Your task to perform on an android device: Open Yahoo.com Image 0: 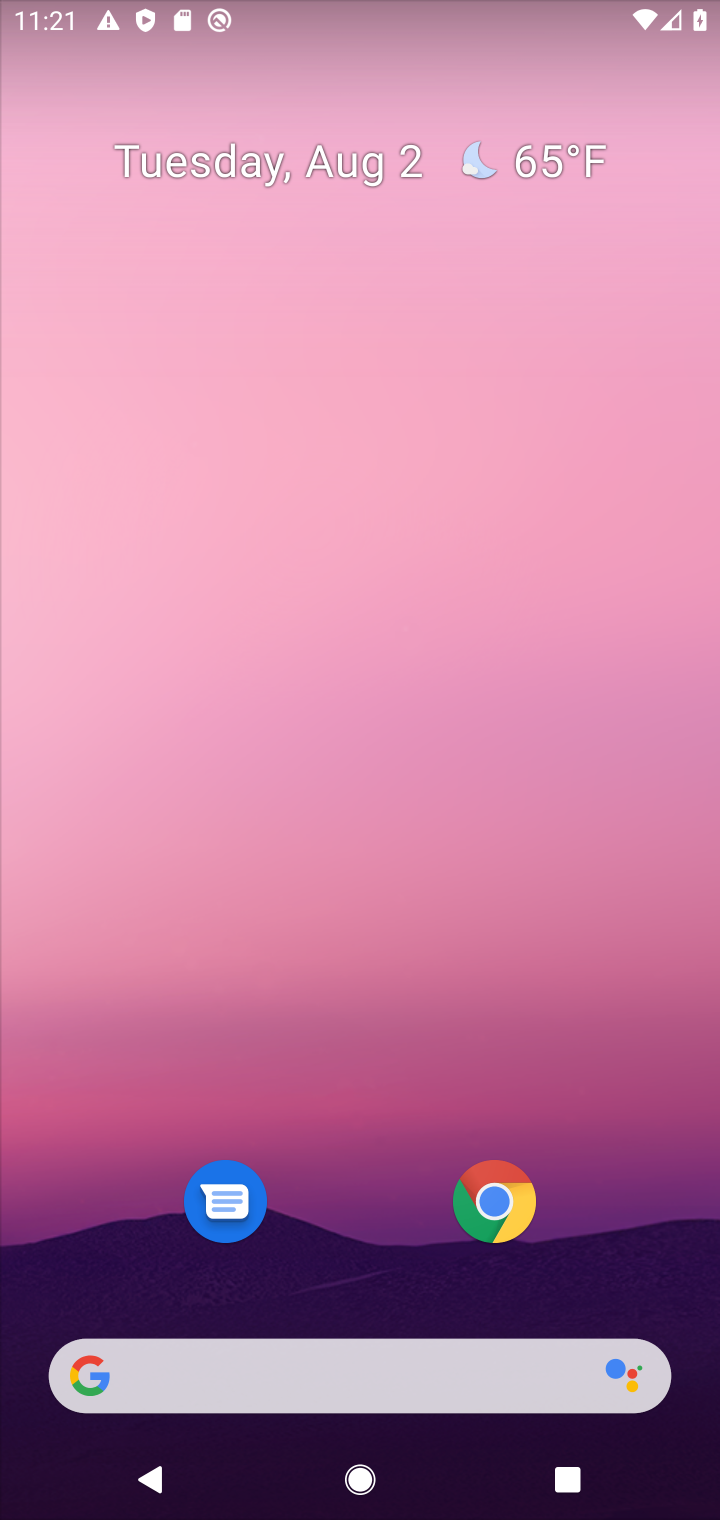
Step 0: click (511, 1219)
Your task to perform on an android device: Open Yahoo.com Image 1: 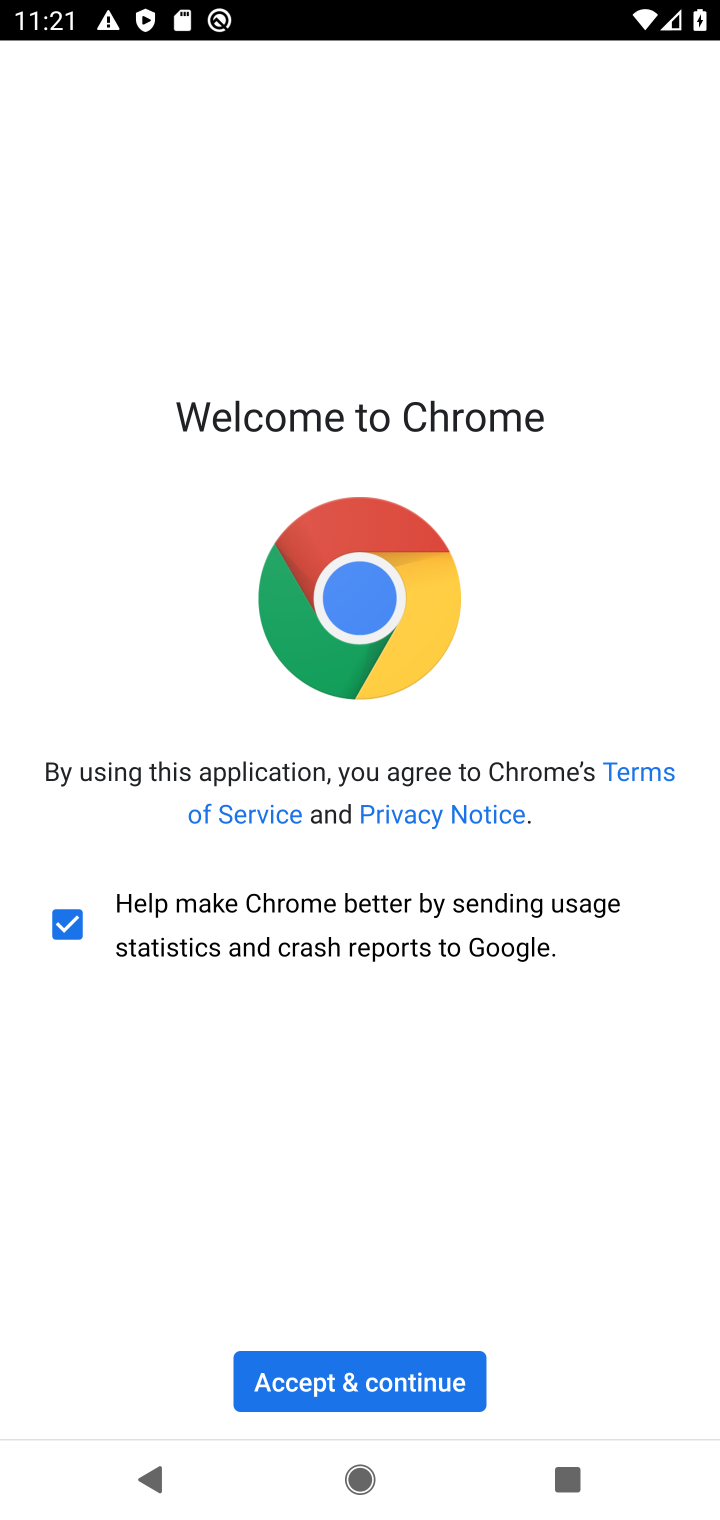
Step 1: click (335, 1368)
Your task to perform on an android device: Open Yahoo.com Image 2: 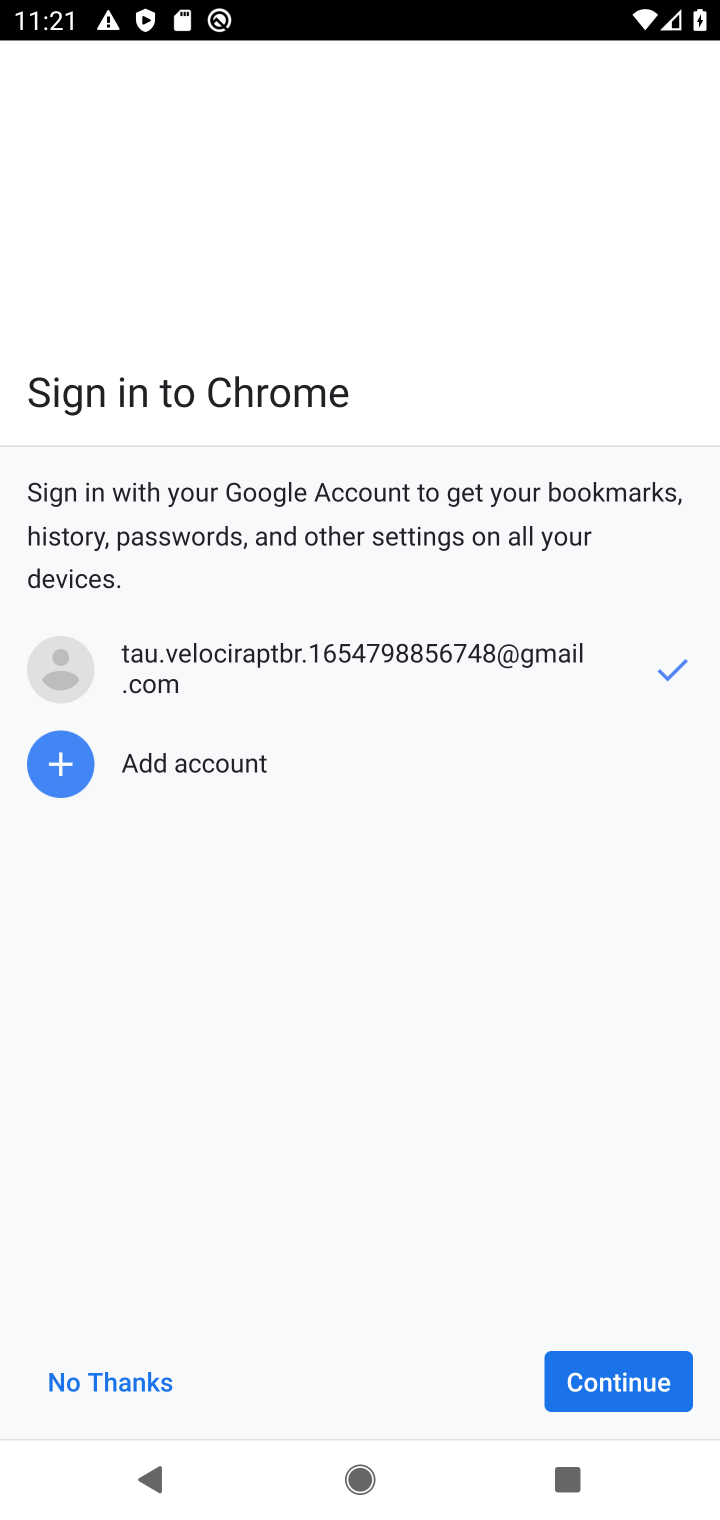
Step 2: click (575, 1427)
Your task to perform on an android device: Open Yahoo.com Image 3: 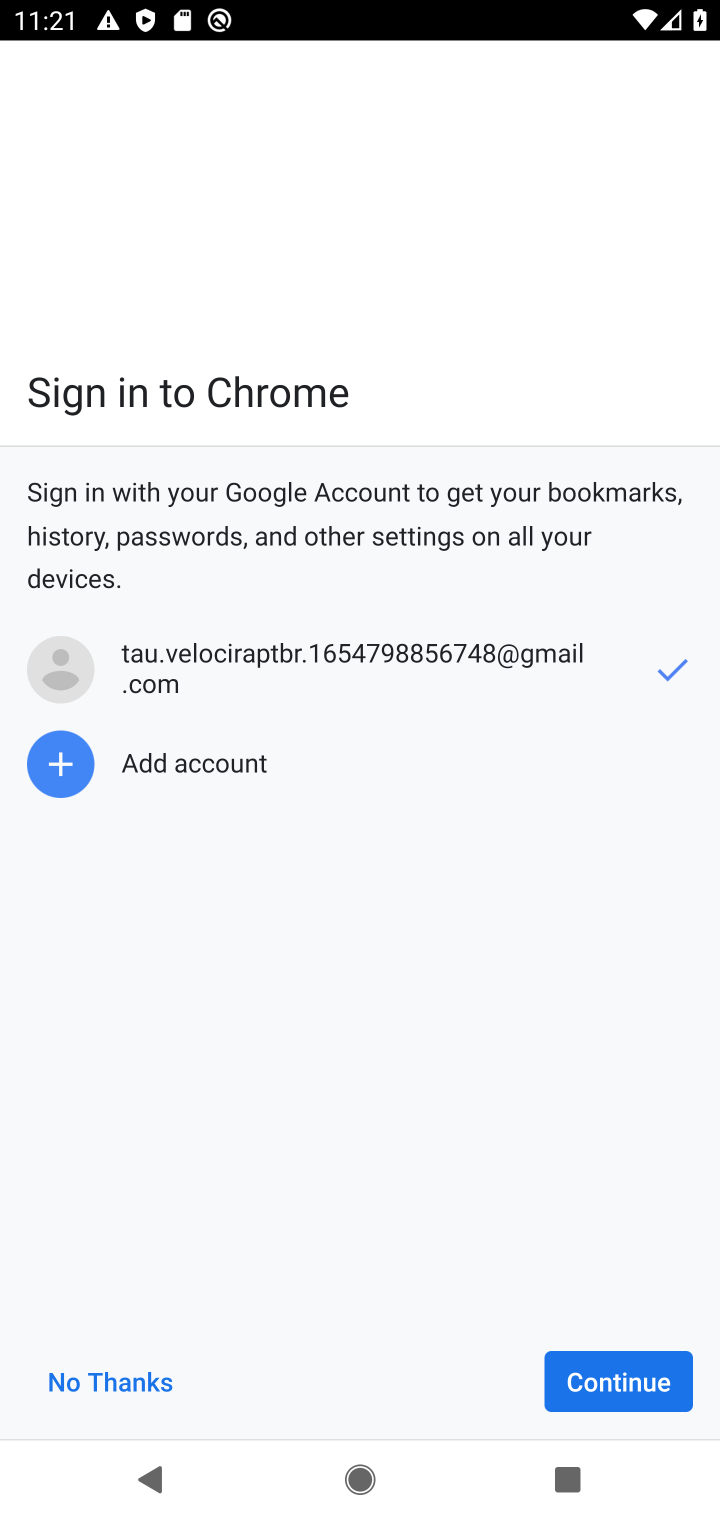
Step 3: click (575, 1403)
Your task to perform on an android device: Open Yahoo.com Image 4: 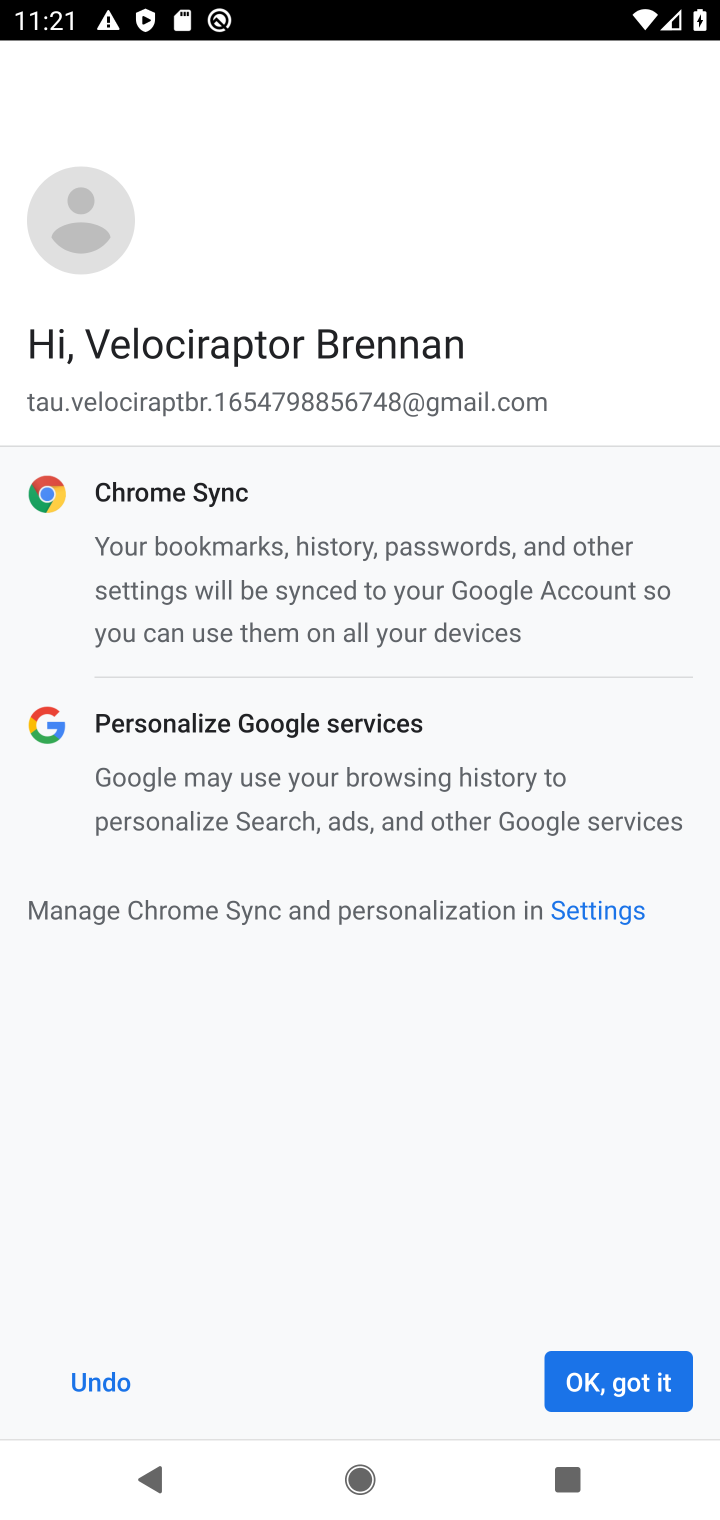
Step 4: click (579, 1398)
Your task to perform on an android device: Open Yahoo.com Image 5: 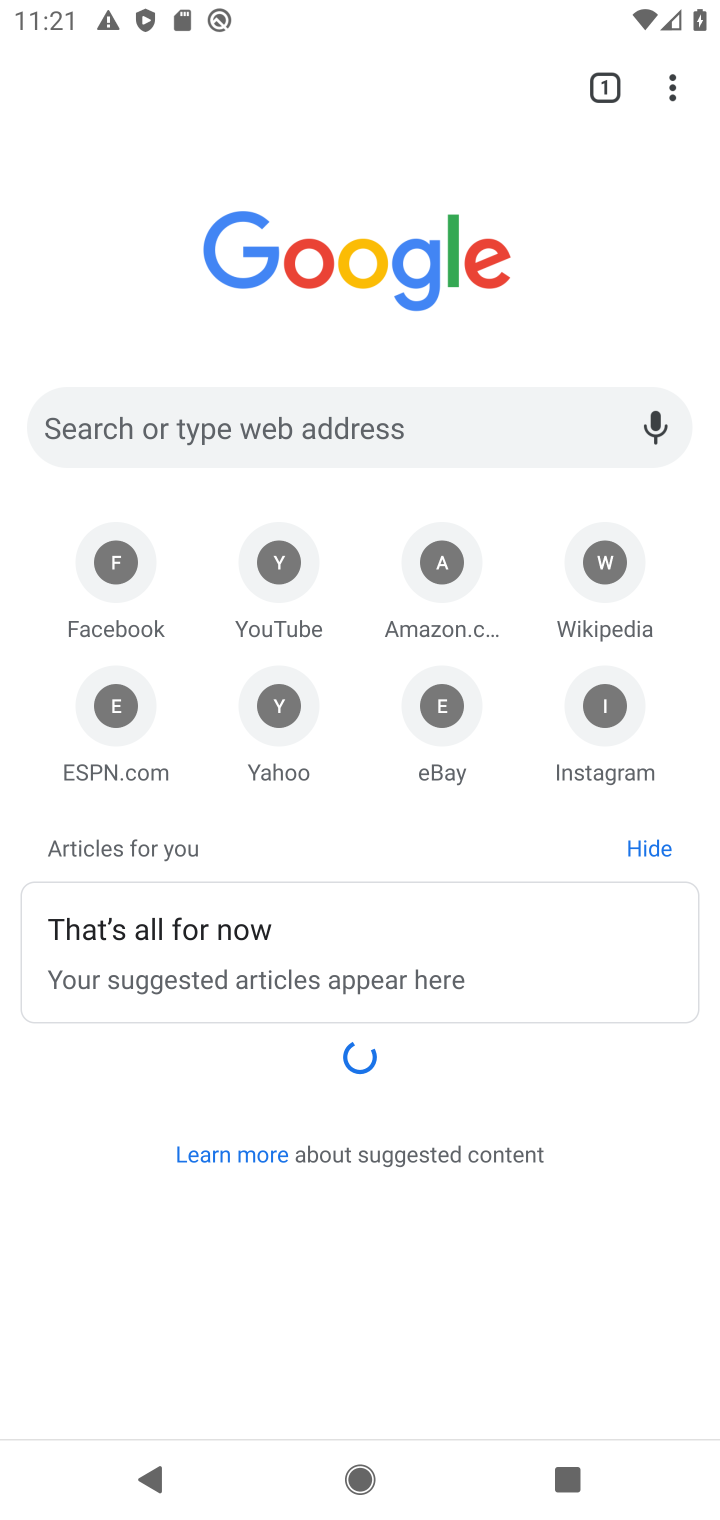
Step 5: click (282, 704)
Your task to perform on an android device: Open Yahoo.com Image 6: 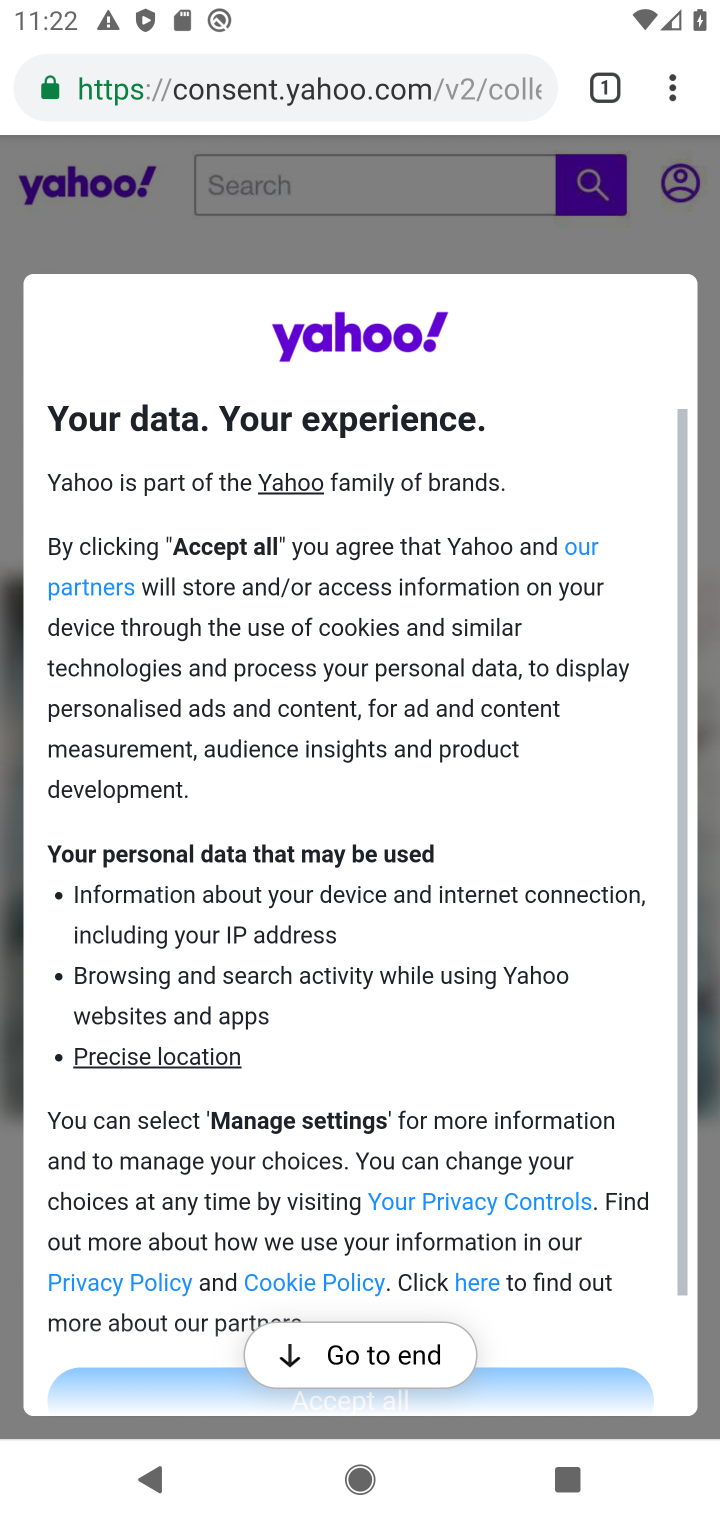
Step 6: click (285, 1364)
Your task to perform on an android device: Open Yahoo.com Image 7: 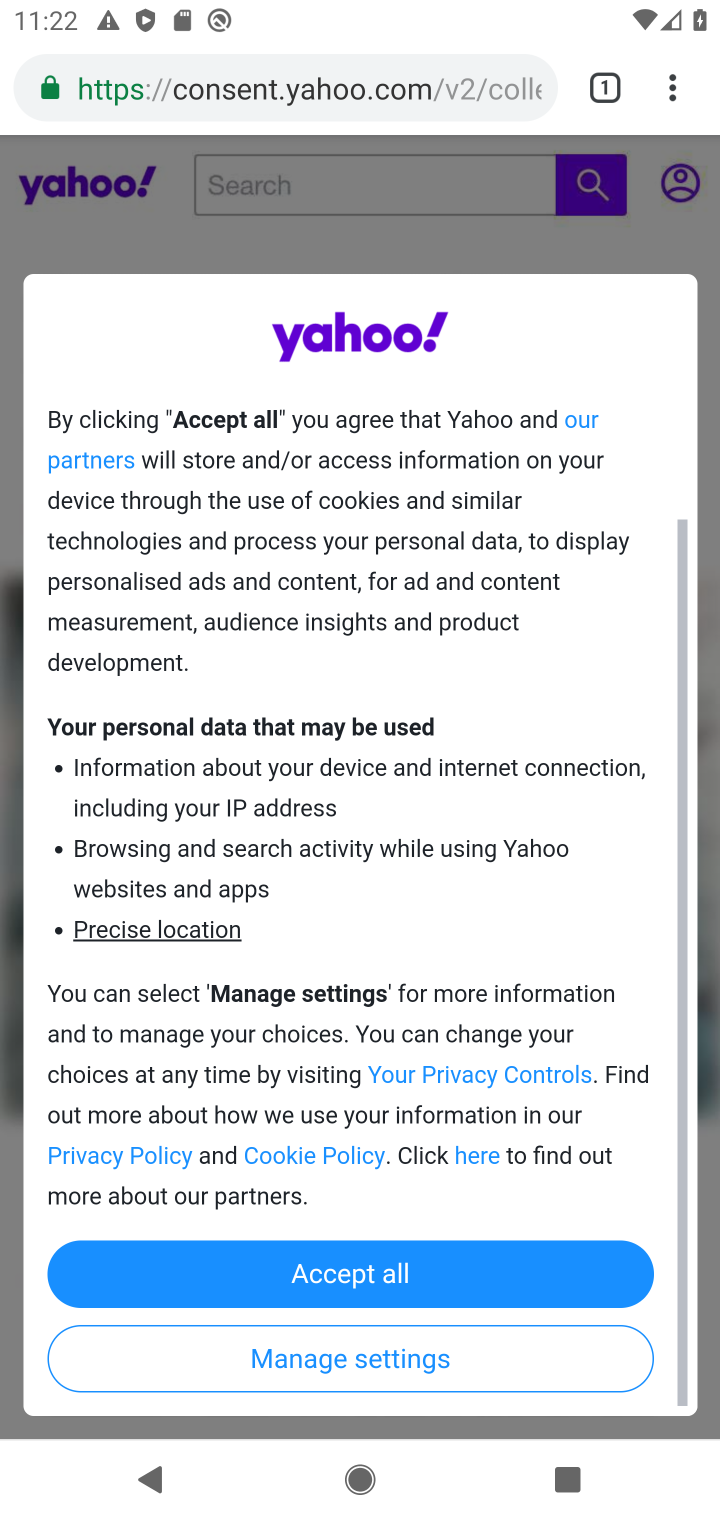
Step 7: click (219, 1280)
Your task to perform on an android device: Open Yahoo.com Image 8: 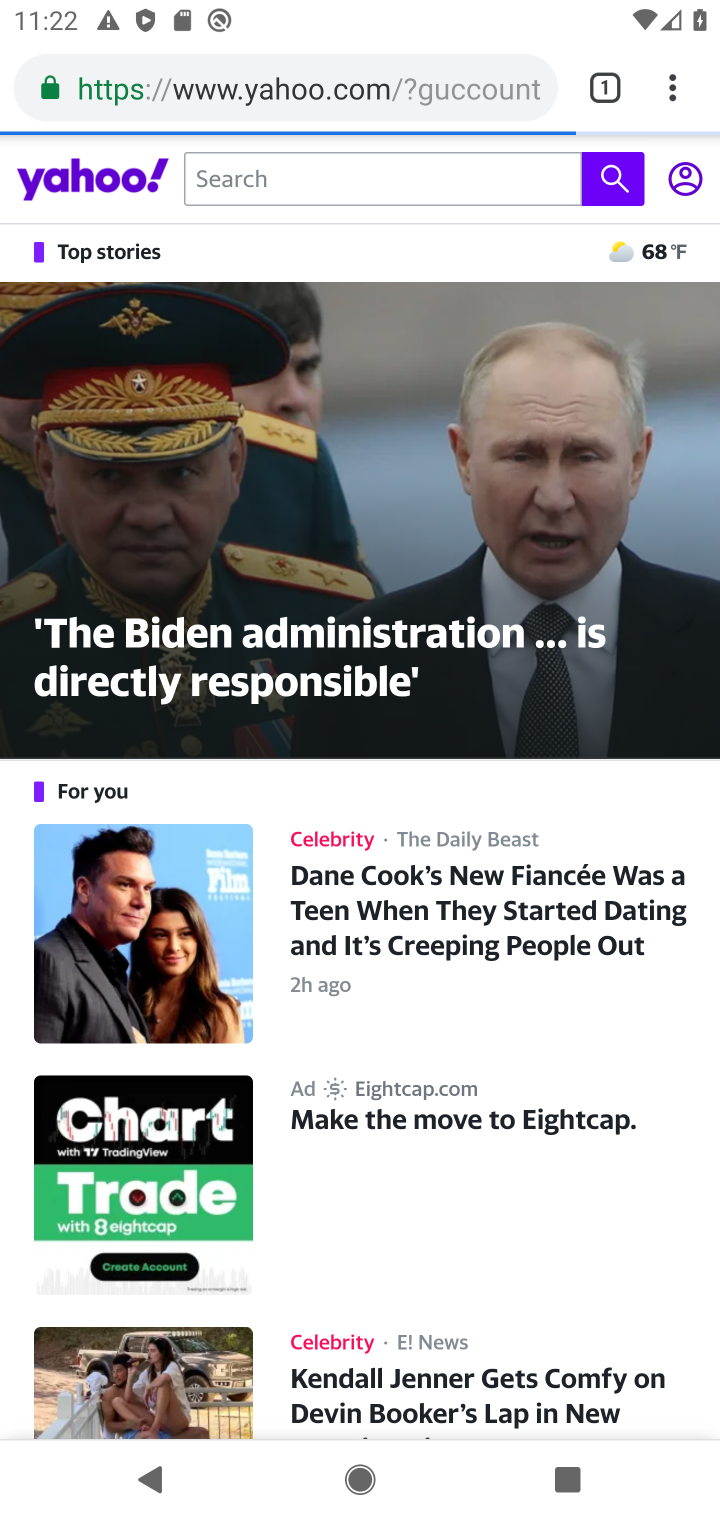
Step 8: task complete